Your task to perform on an android device: change notification settings in the gmail app Image 0: 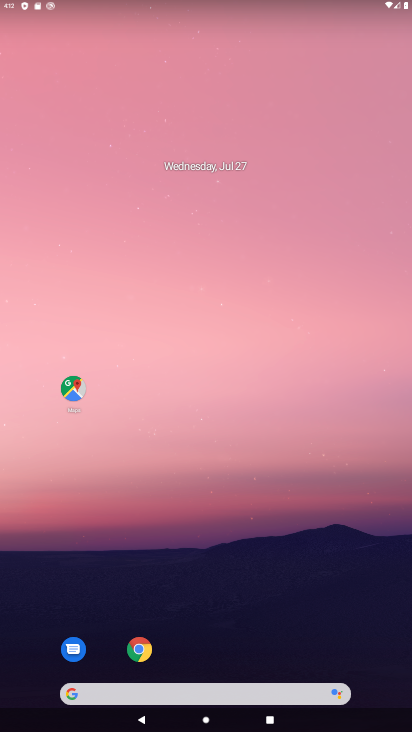
Step 0: drag from (207, 202) to (195, 43)
Your task to perform on an android device: change notification settings in the gmail app Image 1: 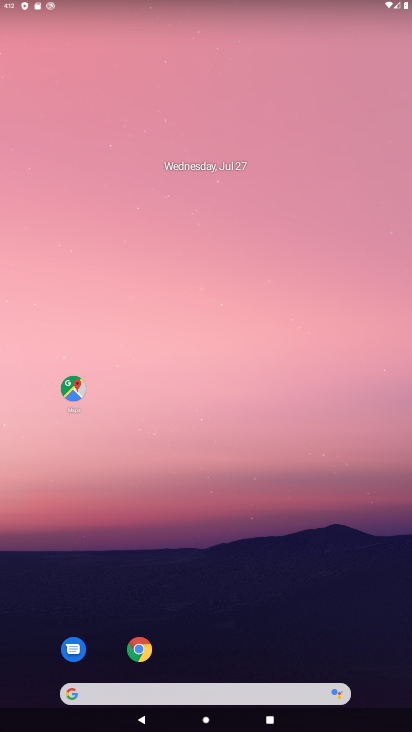
Step 1: drag from (194, 604) to (213, 1)
Your task to perform on an android device: change notification settings in the gmail app Image 2: 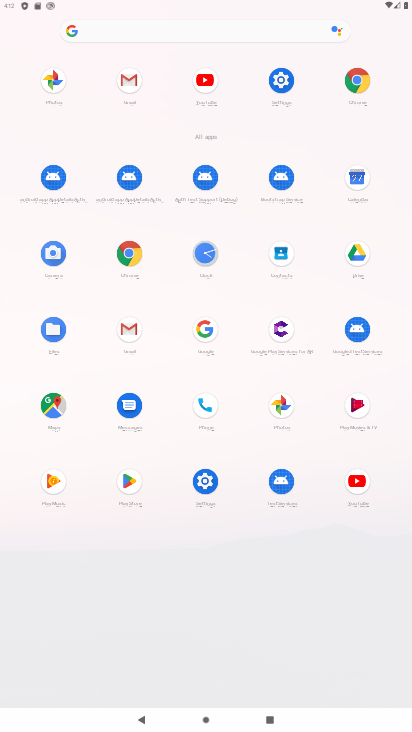
Step 2: click (282, 157)
Your task to perform on an android device: change notification settings in the gmail app Image 3: 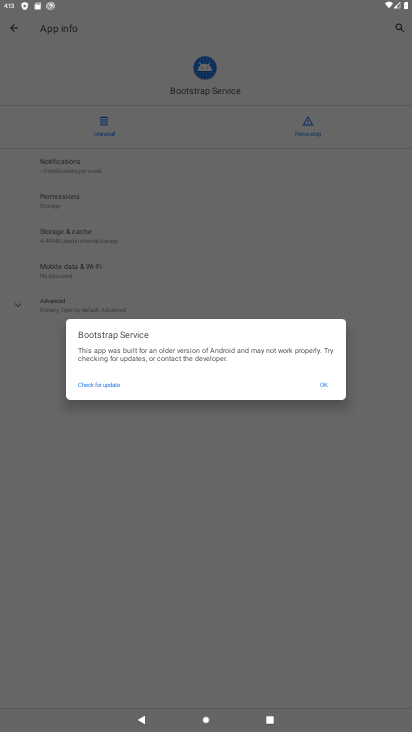
Step 3: press back button
Your task to perform on an android device: change notification settings in the gmail app Image 4: 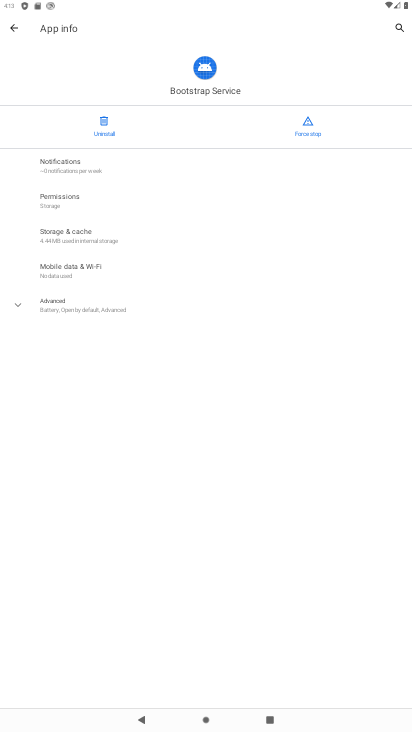
Step 4: press back button
Your task to perform on an android device: change notification settings in the gmail app Image 5: 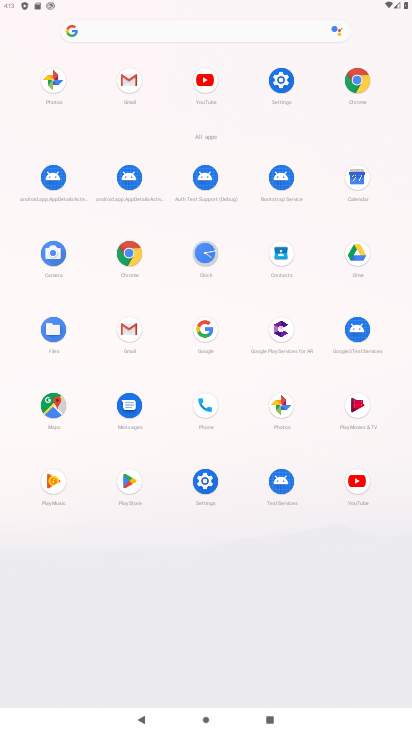
Step 5: click (273, 85)
Your task to perform on an android device: change notification settings in the gmail app Image 6: 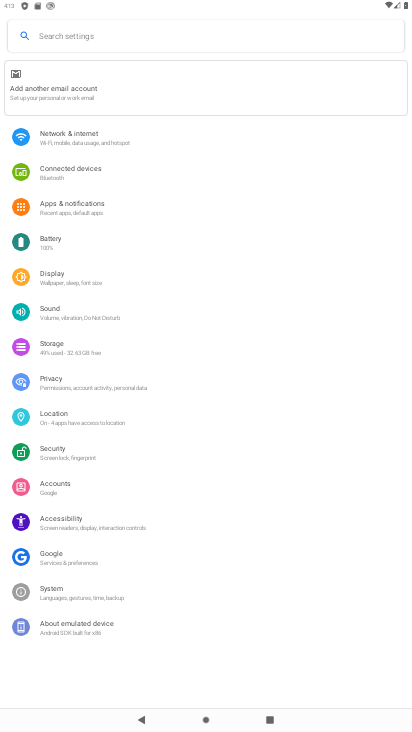
Step 6: click (61, 206)
Your task to perform on an android device: change notification settings in the gmail app Image 7: 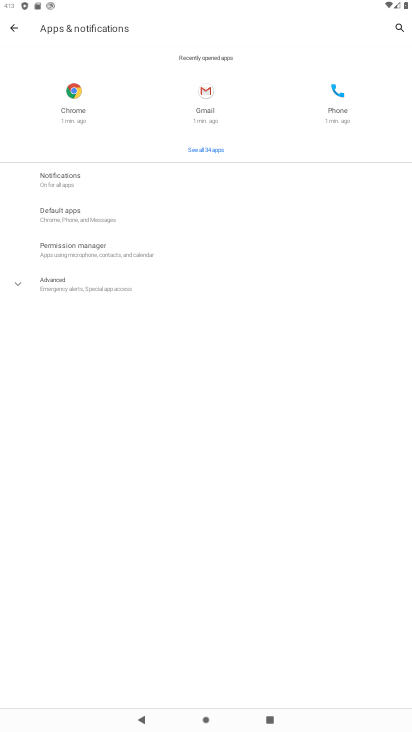
Step 7: click (55, 181)
Your task to perform on an android device: change notification settings in the gmail app Image 8: 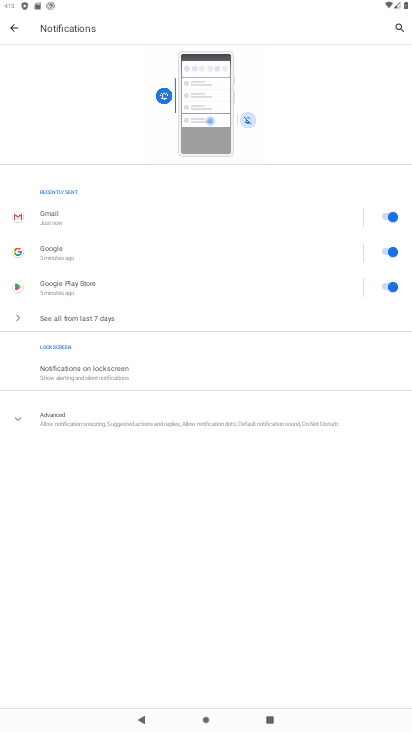
Step 8: click (65, 378)
Your task to perform on an android device: change notification settings in the gmail app Image 9: 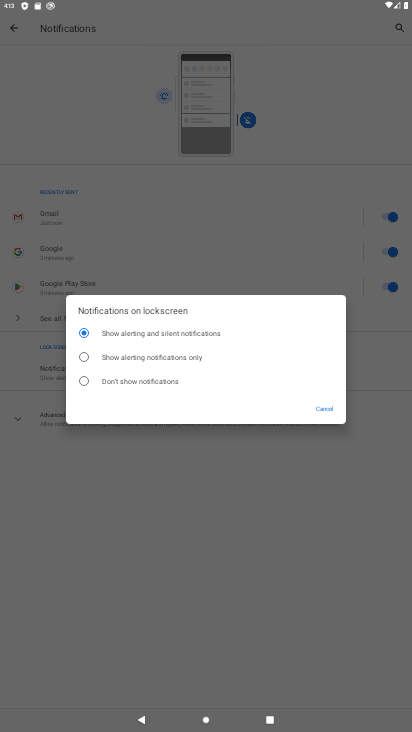
Step 9: click (78, 378)
Your task to perform on an android device: change notification settings in the gmail app Image 10: 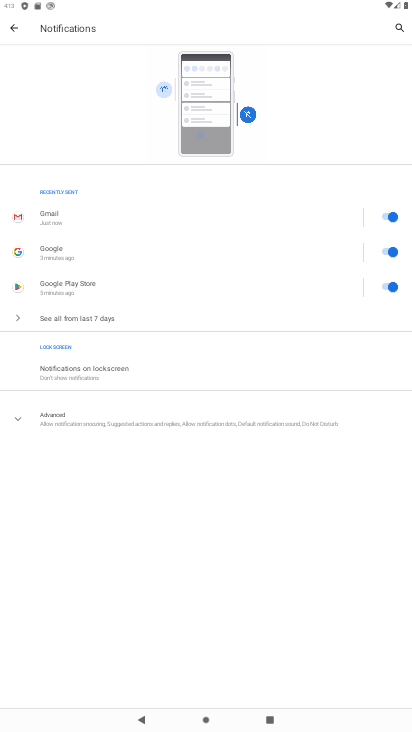
Step 10: task complete